Your task to perform on an android device: Show the shopping cart on walmart. Image 0: 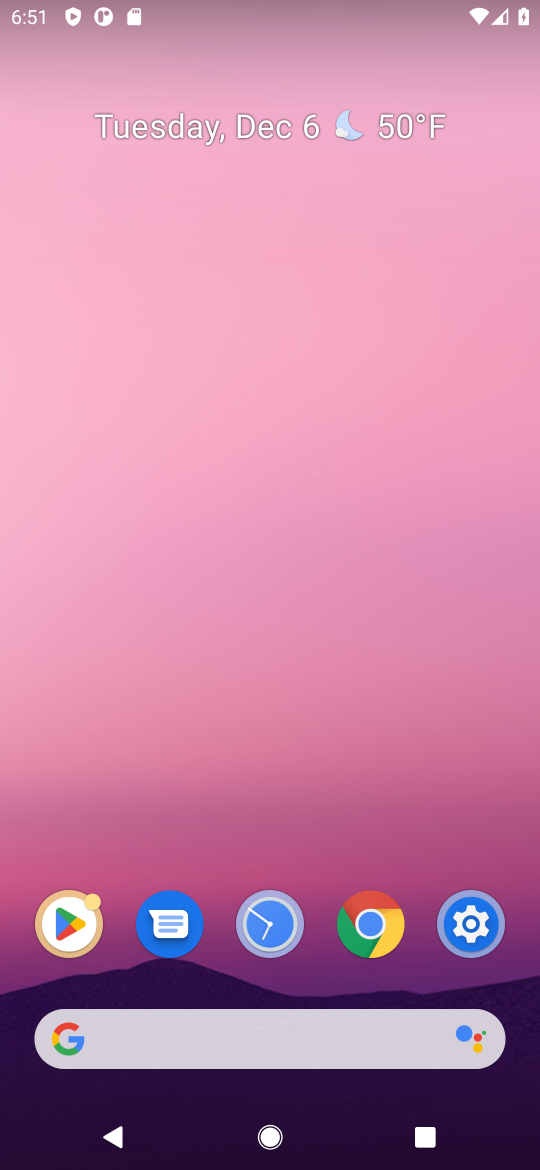
Step 0: click (285, 1044)
Your task to perform on an android device: Show the shopping cart on walmart. Image 1: 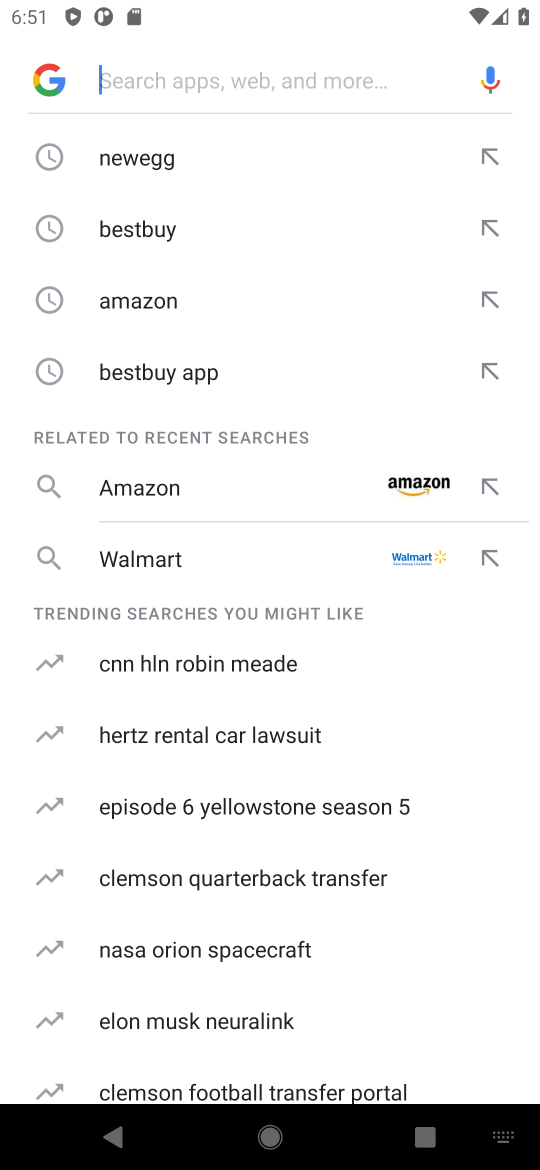
Step 1: type "walmart"
Your task to perform on an android device: Show the shopping cart on walmart. Image 2: 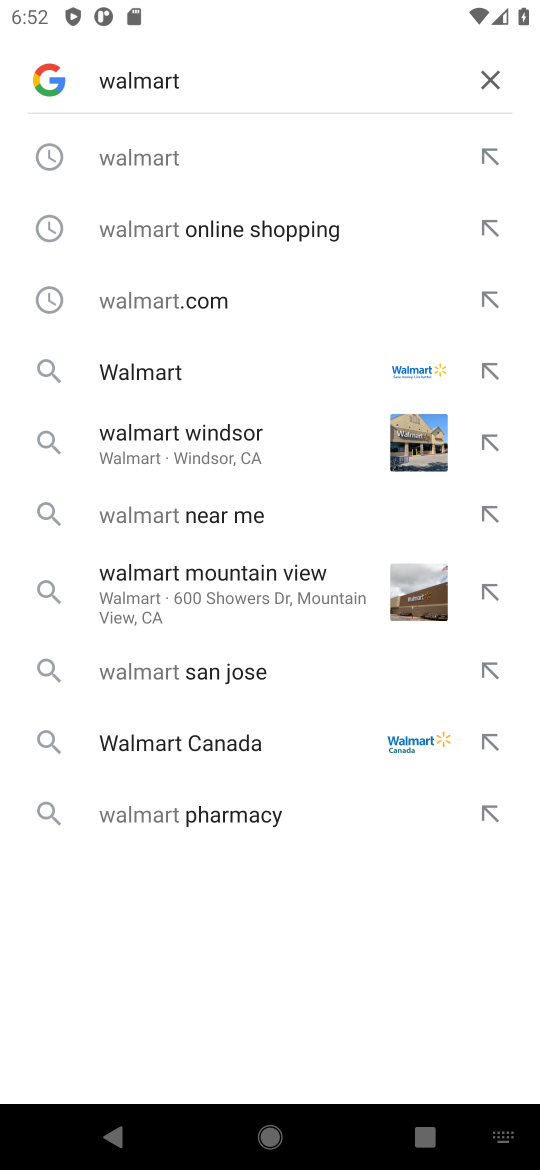
Step 2: click (130, 170)
Your task to perform on an android device: Show the shopping cart on walmart. Image 3: 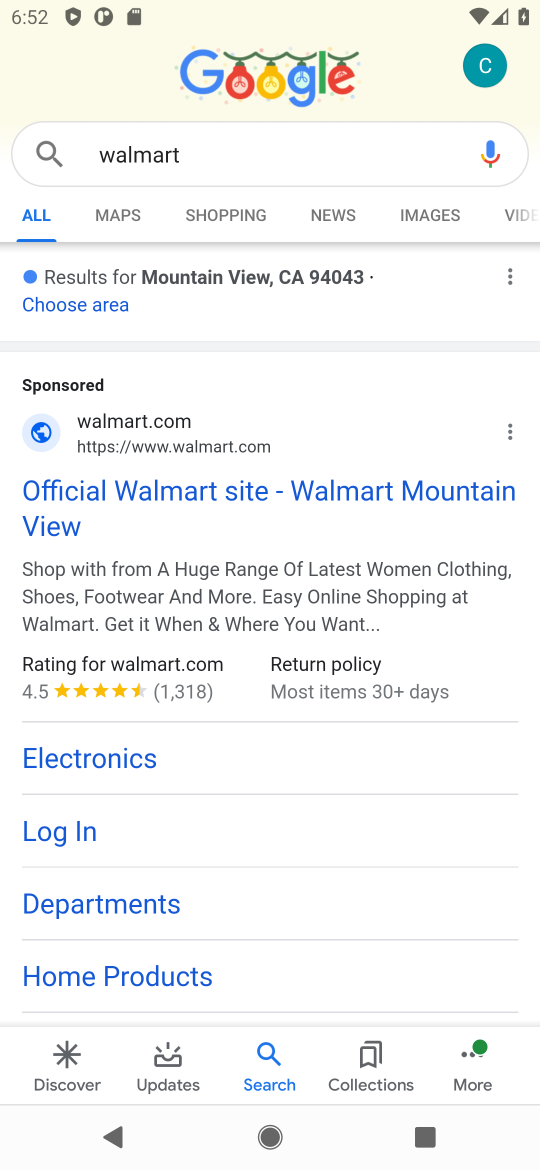
Step 3: click (223, 480)
Your task to perform on an android device: Show the shopping cart on walmart. Image 4: 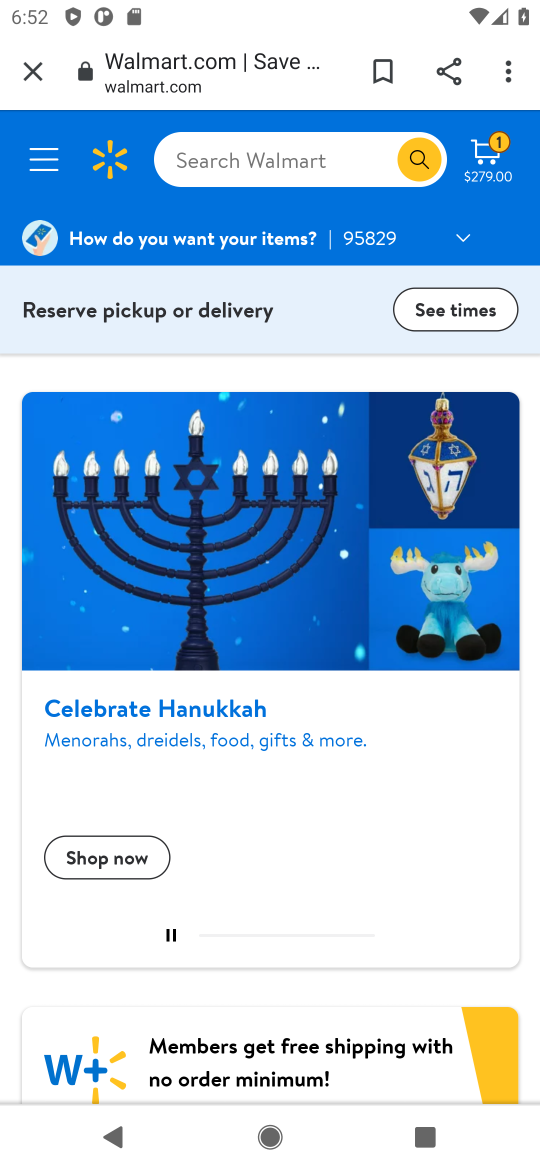
Step 4: click (267, 171)
Your task to perform on an android device: Show the shopping cart on walmart. Image 5: 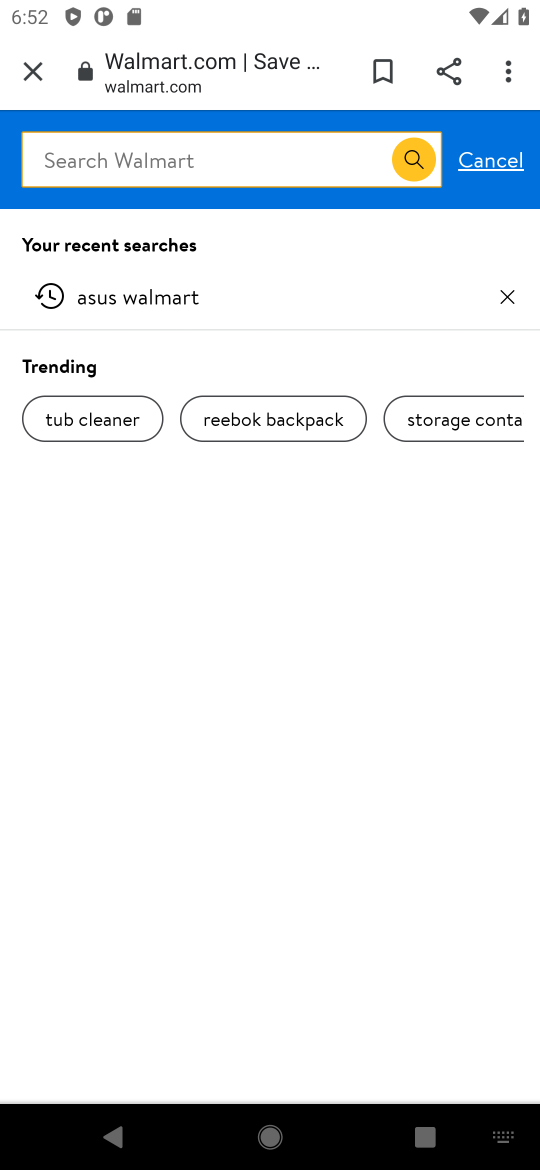
Step 5: click (515, 165)
Your task to perform on an android device: Show the shopping cart on walmart. Image 6: 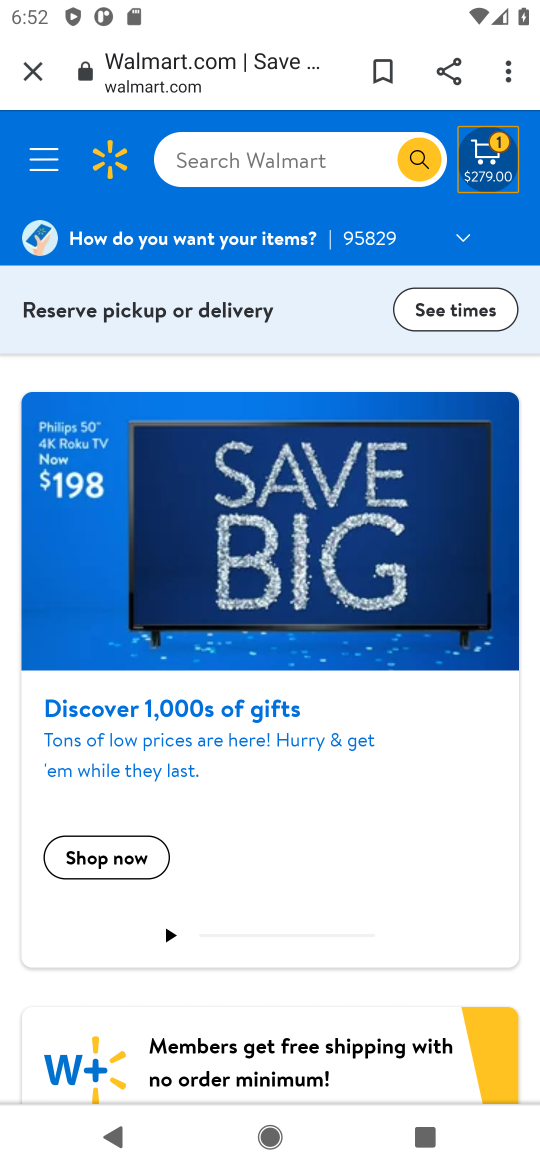
Step 6: click (477, 156)
Your task to perform on an android device: Show the shopping cart on walmart. Image 7: 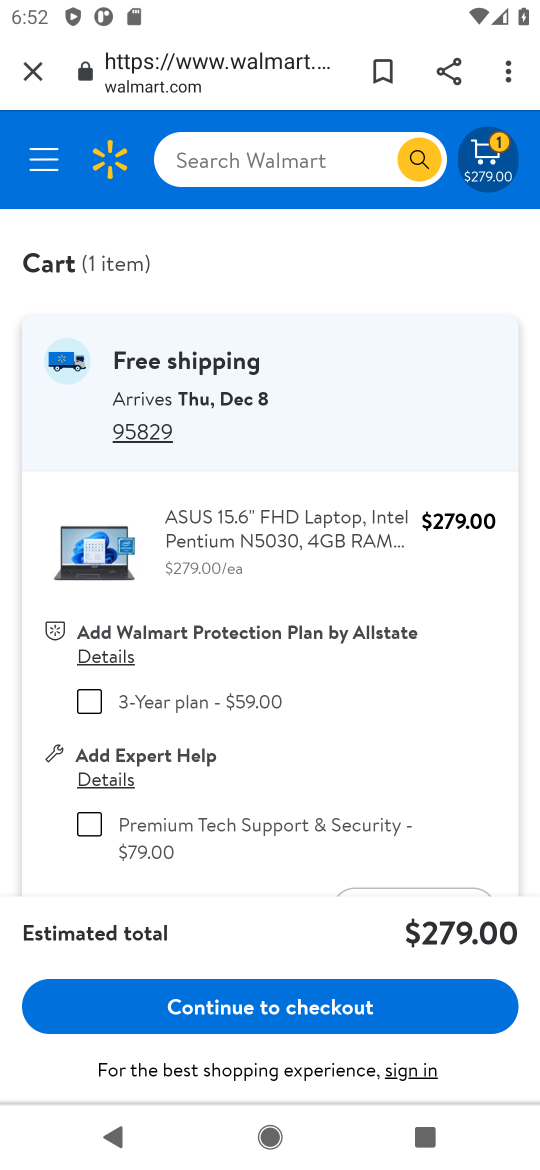
Step 7: task complete